Your task to perform on an android device: open wifi settings Image 0: 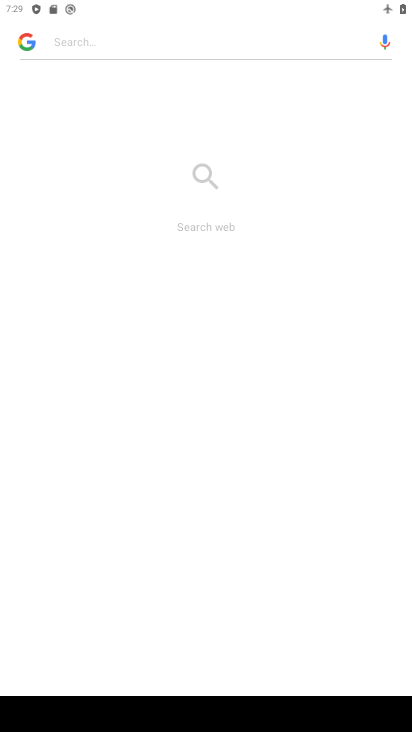
Step 0: press home button
Your task to perform on an android device: open wifi settings Image 1: 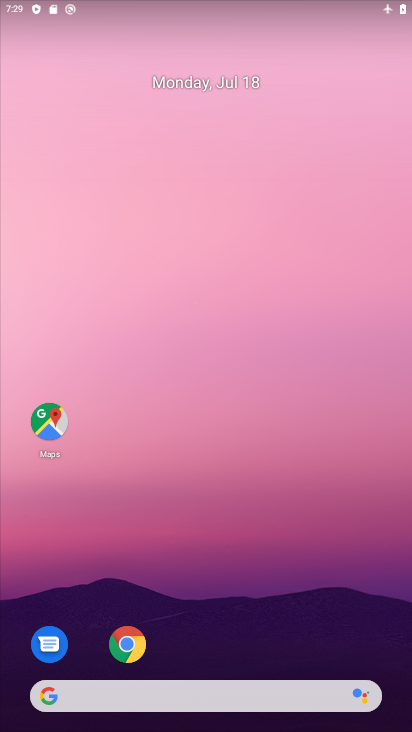
Step 1: drag from (341, 622) to (379, 88)
Your task to perform on an android device: open wifi settings Image 2: 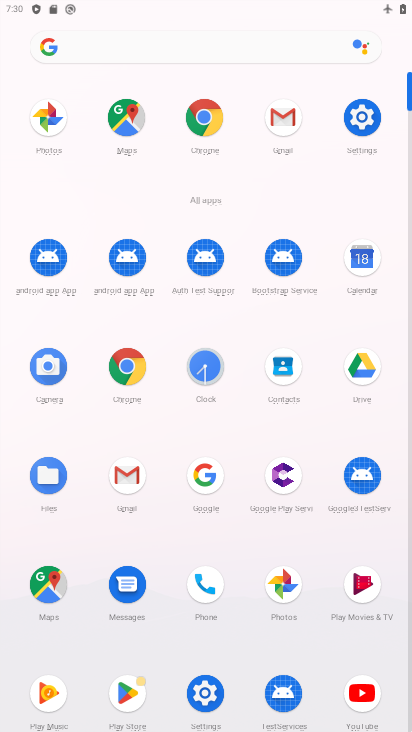
Step 2: click (360, 121)
Your task to perform on an android device: open wifi settings Image 3: 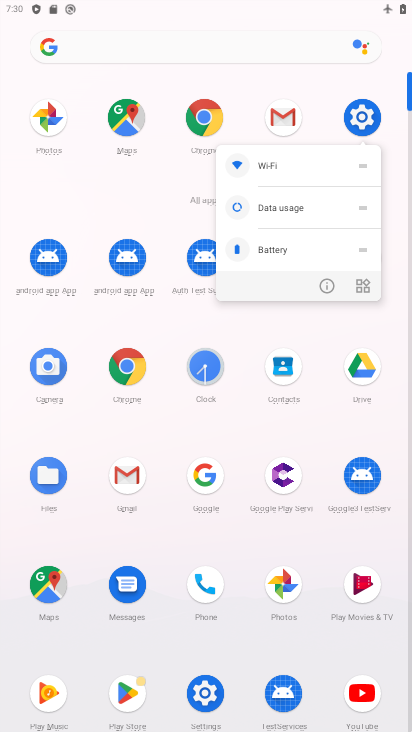
Step 3: click (372, 112)
Your task to perform on an android device: open wifi settings Image 4: 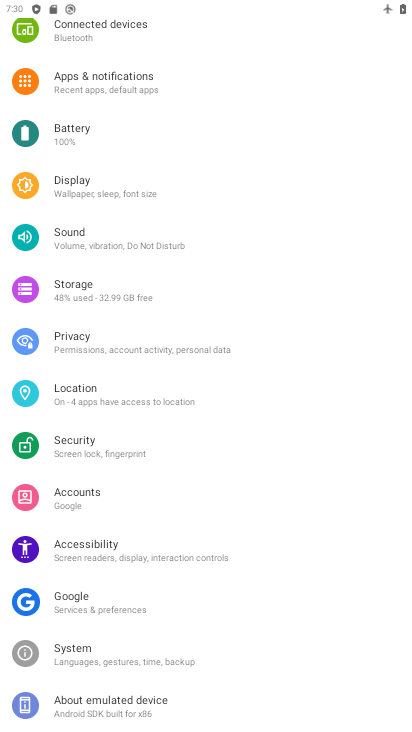
Step 4: drag from (341, 370) to (346, 441)
Your task to perform on an android device: open wifi settings Image 5: 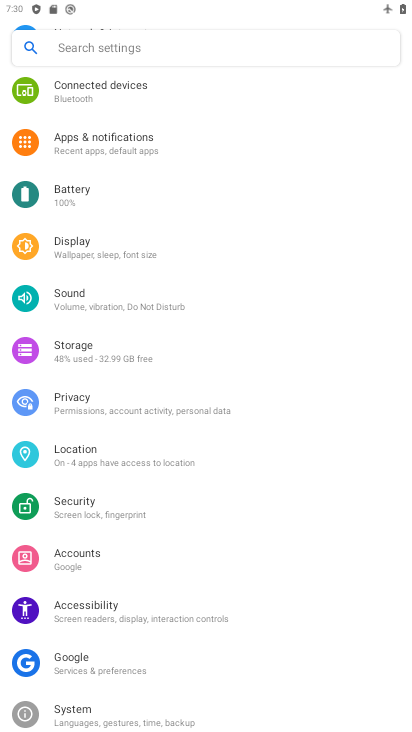
Step 5: drag from (344, 306) to (333, 411)
Your task to perform on an android device: open wifi settings Image 6: 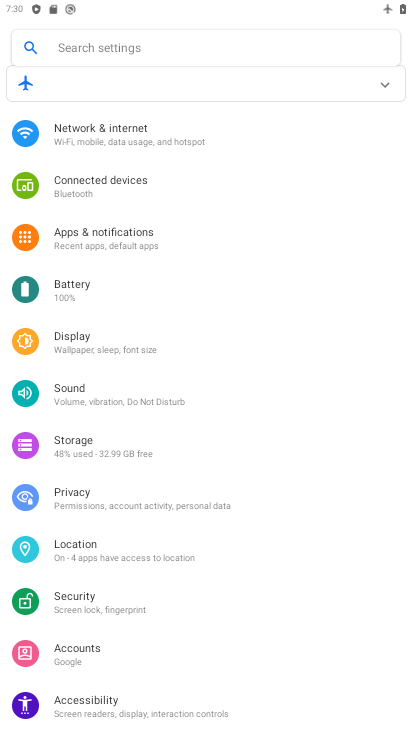
Step 6: drag from (331, 290) to (336, 436)
Your task to perform on an android device: open wifi settings Image 7: 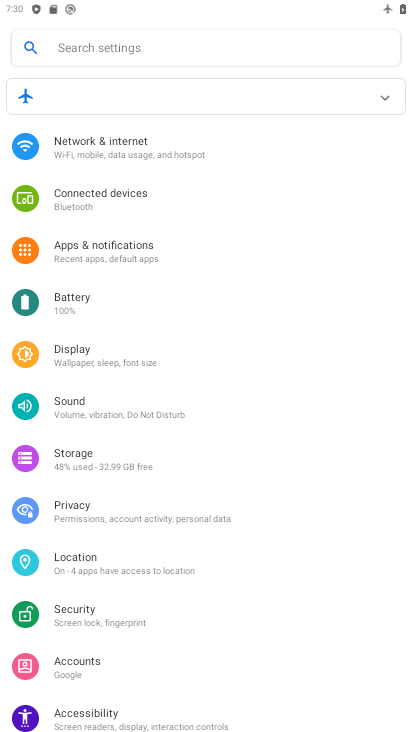
Step 7: drag from (324, 418) to (326, 331)
Your task to perform on an android device: open wifi settings Image 8: 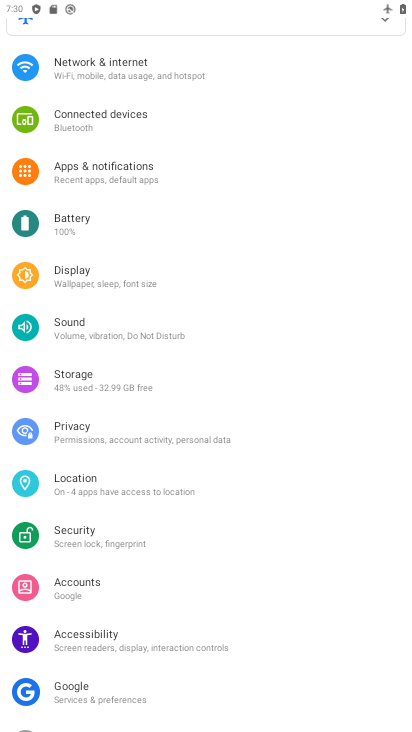
Step 8: drag from (325, 477) to (328, 386)
Your task to perform on an android device: open wifi settings Image 9: 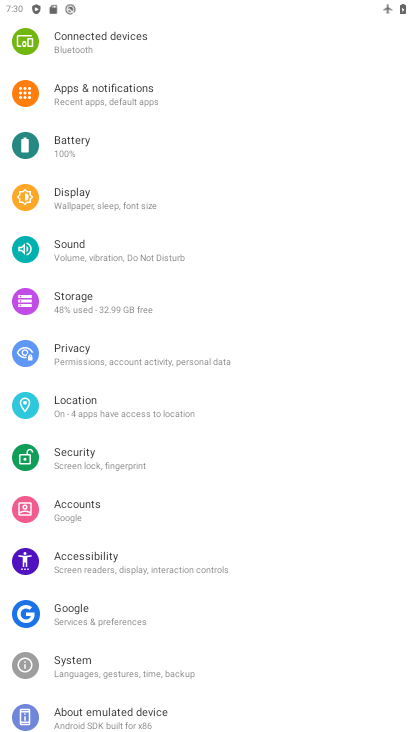
Step 9: drag from (322, 478) to (339, 359)
Your task to perform on an android device: open wifi settings Image 10: 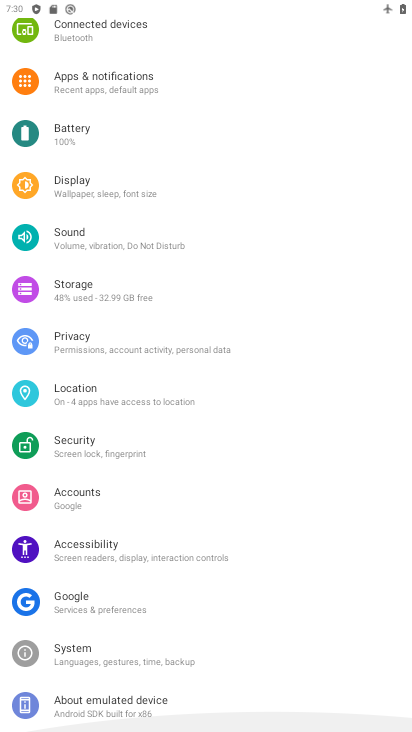
Step 10: drag from (340, 290) to (336, 378)
Your task to perform on an android device: open wifi settings Image 11: 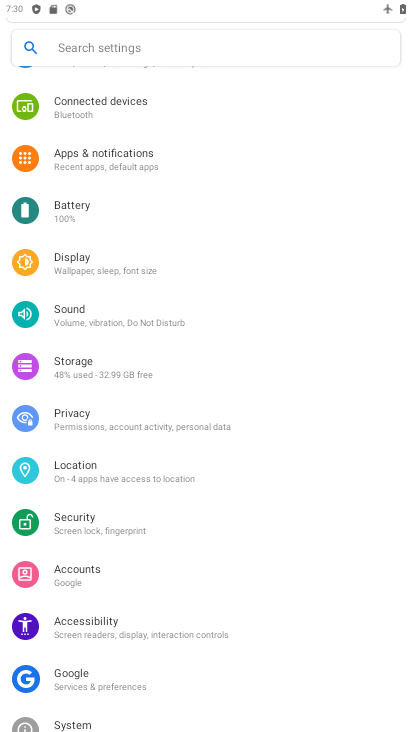
Step 11: drag from (335, 269) to (344, 384)
Your task to perform on an android device: open wifi settings Image 12: 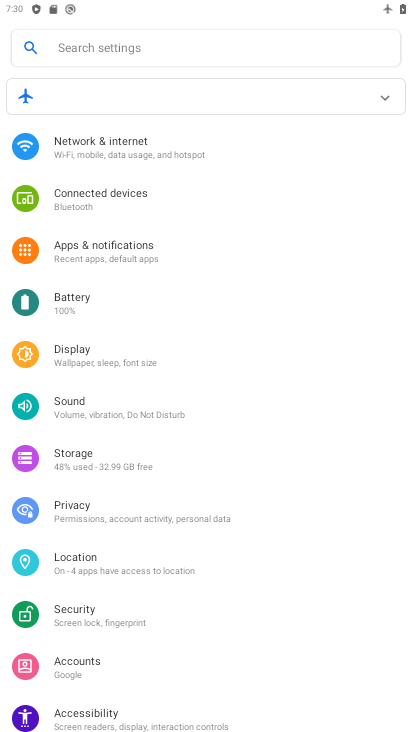
Step 12: click (298, 153)
Your task to perform on an android device: open wifi settings Image 13: 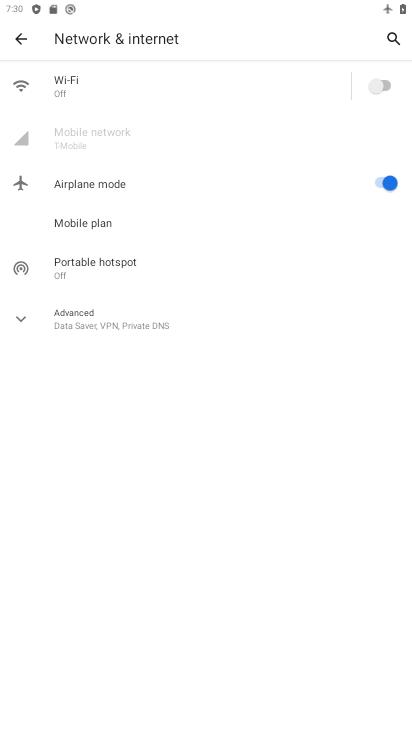
Step 13: click (91, 95)
Your task to perform on an android device: open wifi settings Image 14: 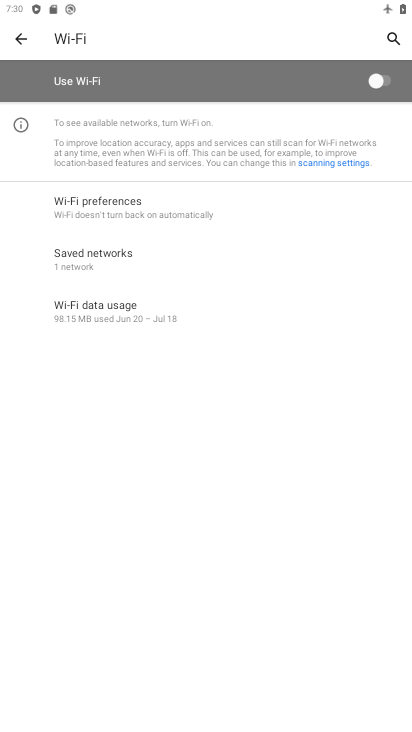
Step 14: task complete